Your task to perform on an android device: When is my next appointment? Image 0: 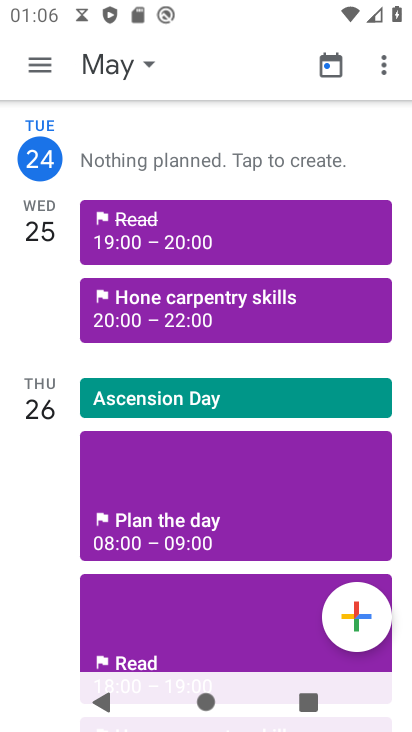
Step 0: press home button
Your task to perform on an android device: When is my next appointment? Image 1: 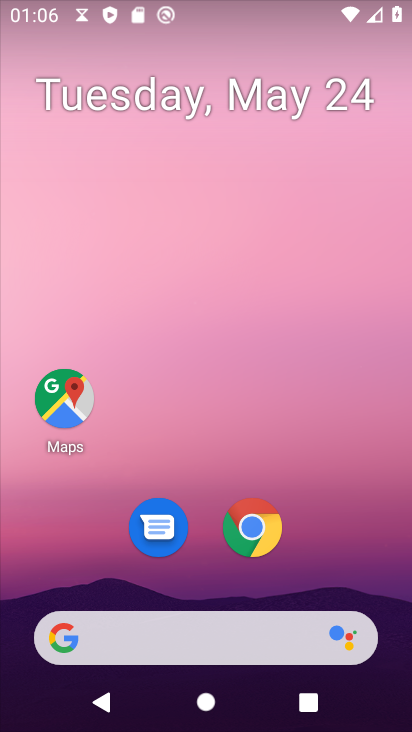
Step 1: drag from (230, 634) to (348, 129)
Your task to perform on an android device: When is my next appointment? Image 2: 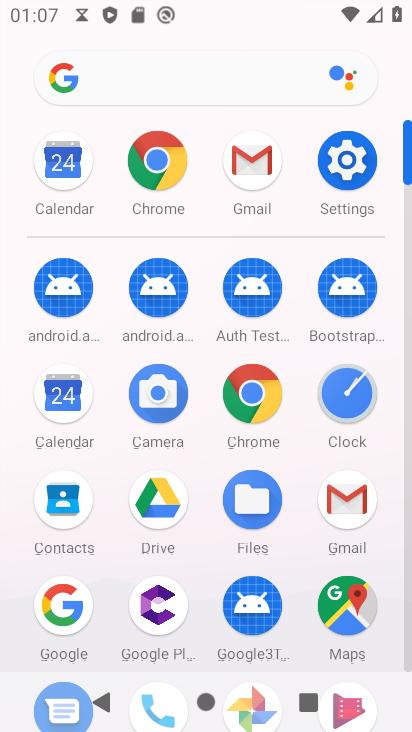
Step 2: click (59, 401)
Your task to perform on an android device: When is my next appointment? Image 3: 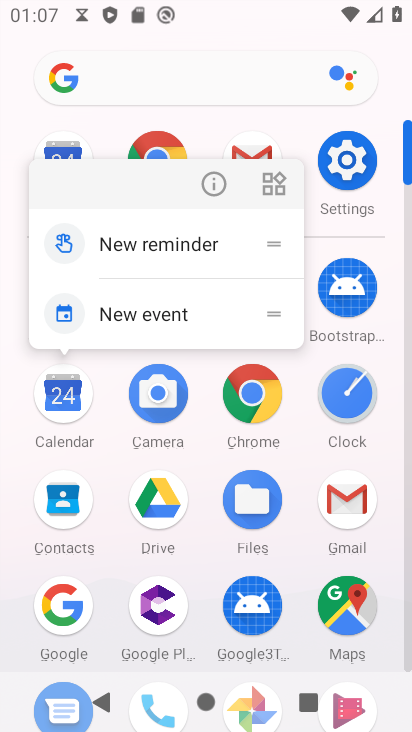
Step 3: click (59, 401)
Your task to perform on an android device: When is my next appointment? Image 4: 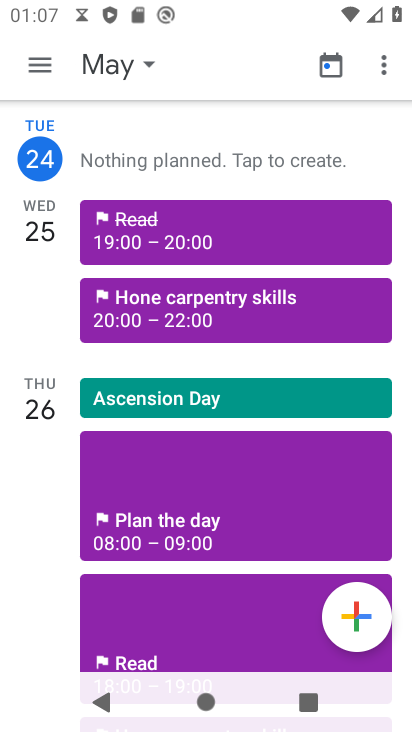
Step 4: click (261, 232)
Your task to perform on an android device: When is my next appointment? Image 5: 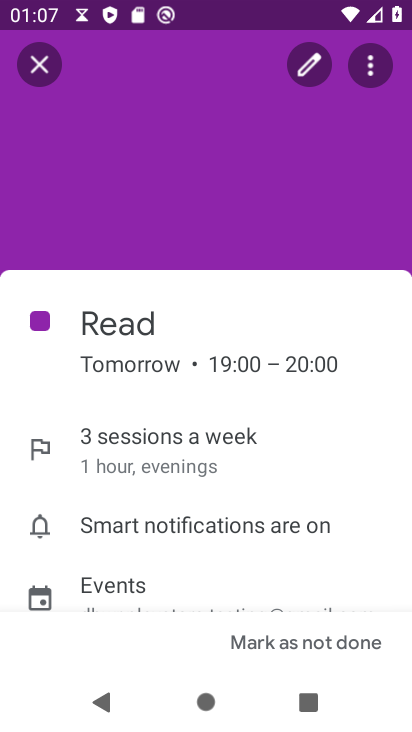
Step 5: task complete